Your task to perform on an android device: open app "Viber Messenger" (install if not already installed) Image 0: 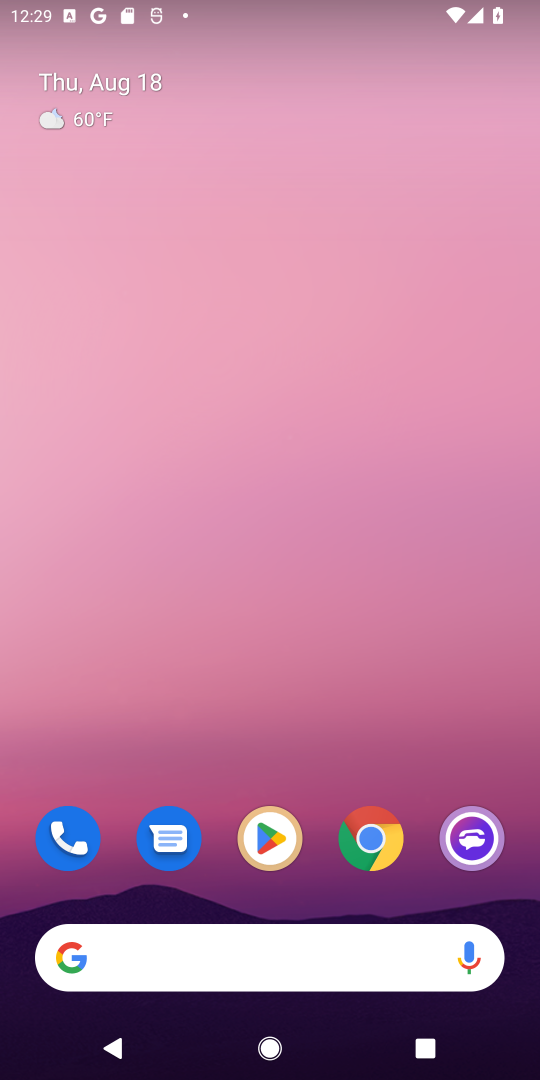
Step 0: click (267, 836)
Your task to perform on an android device: open app "Viber Messenger" (install if not already installed) Image 1: 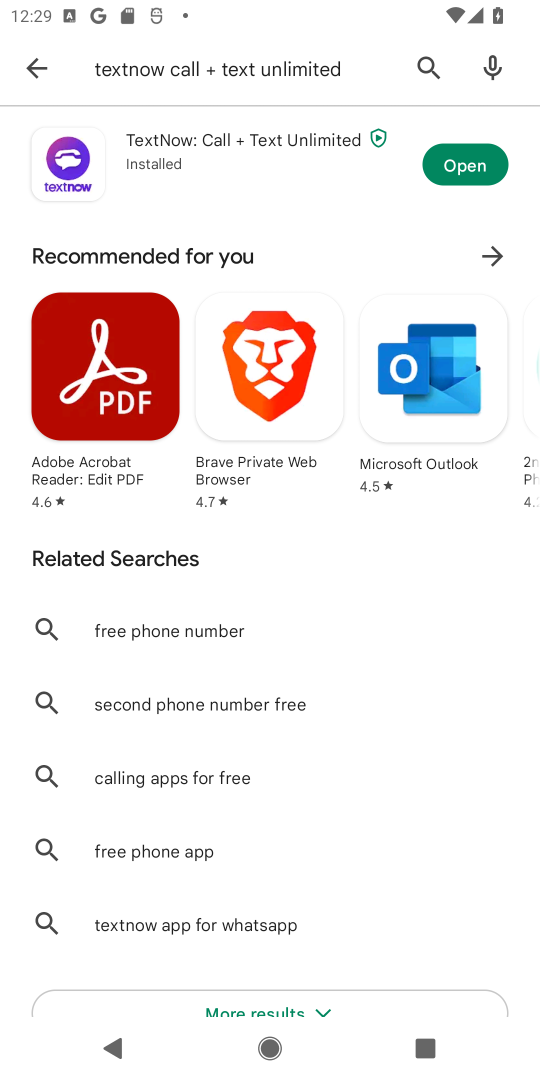
Step 1: click (464, 70)
Your task to perform on an android device: open app "Viber Messenger" (install if not already installed) Image 2: 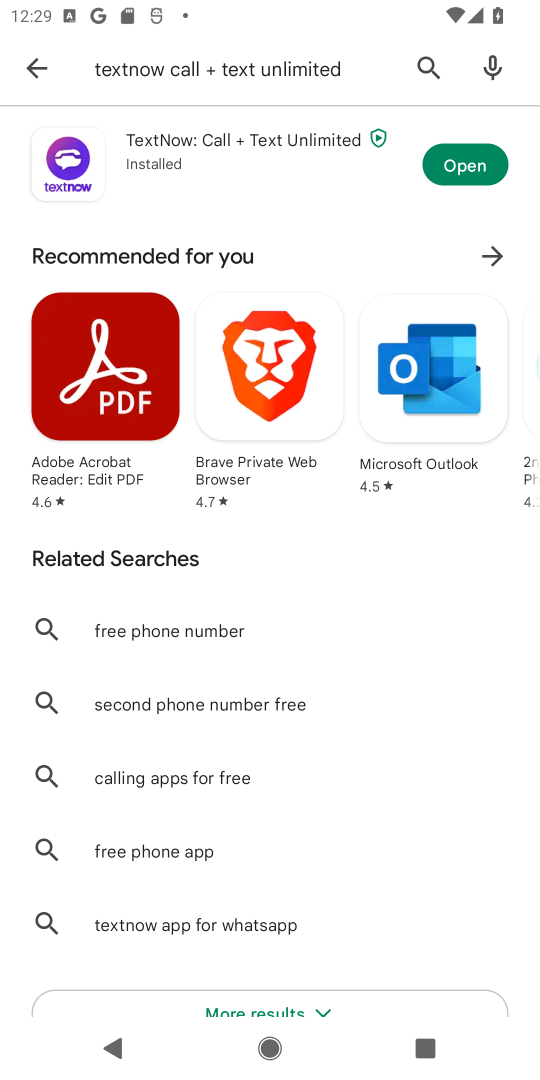
Step 2: click (448, 68)
Your task to perform on an android device: open app "Viber Messenger" (install if not already installed) Image 3: 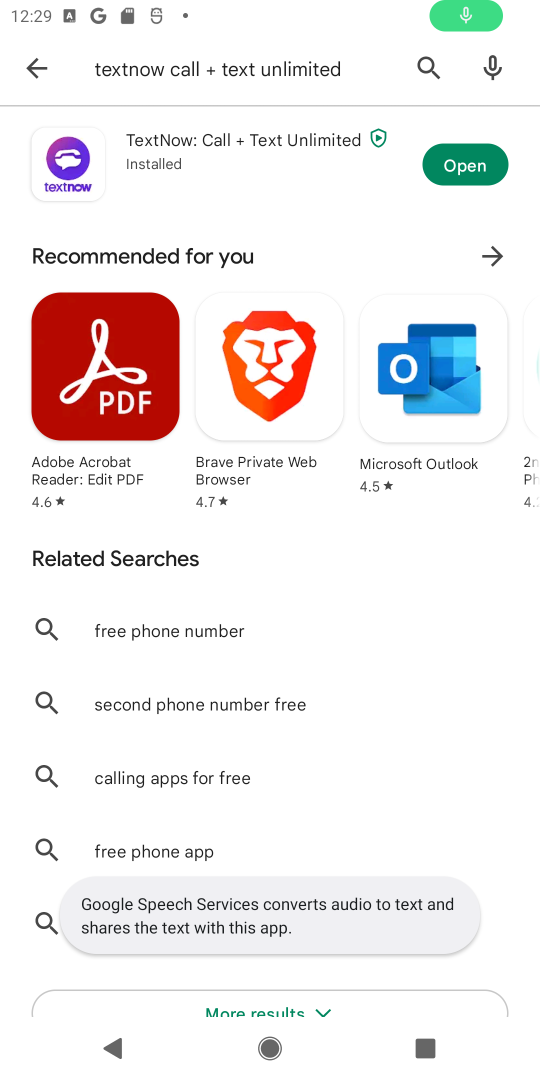
Step 3: click (418, 61)
Your task to perform on an android device: open app "Viber Messenger" (install if not already installed) Image 4: 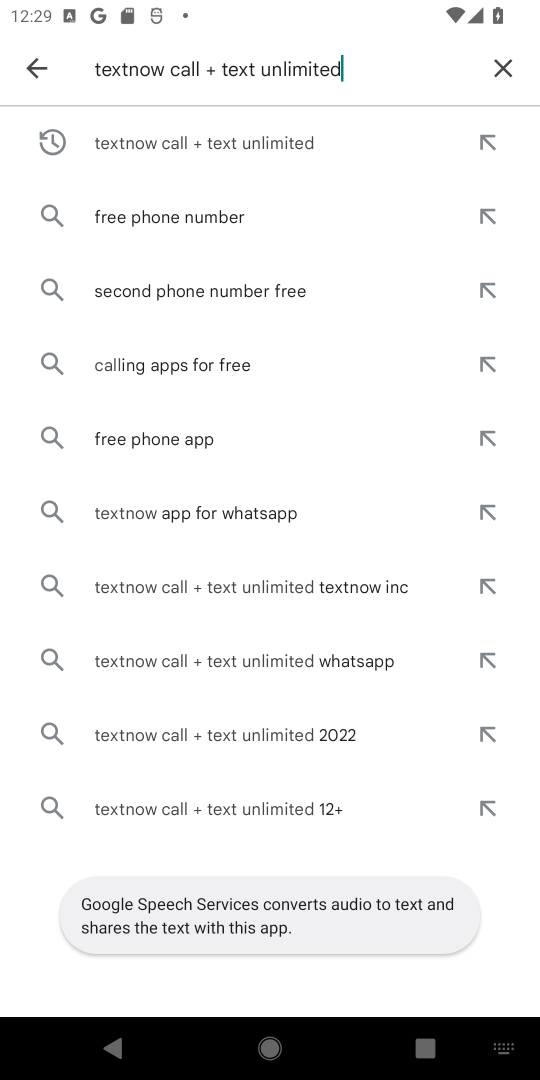
Step 4: click (501, 62)
Your task to perform on an android device: open app "Viber Messenger" (install if not already installed) Image 5: 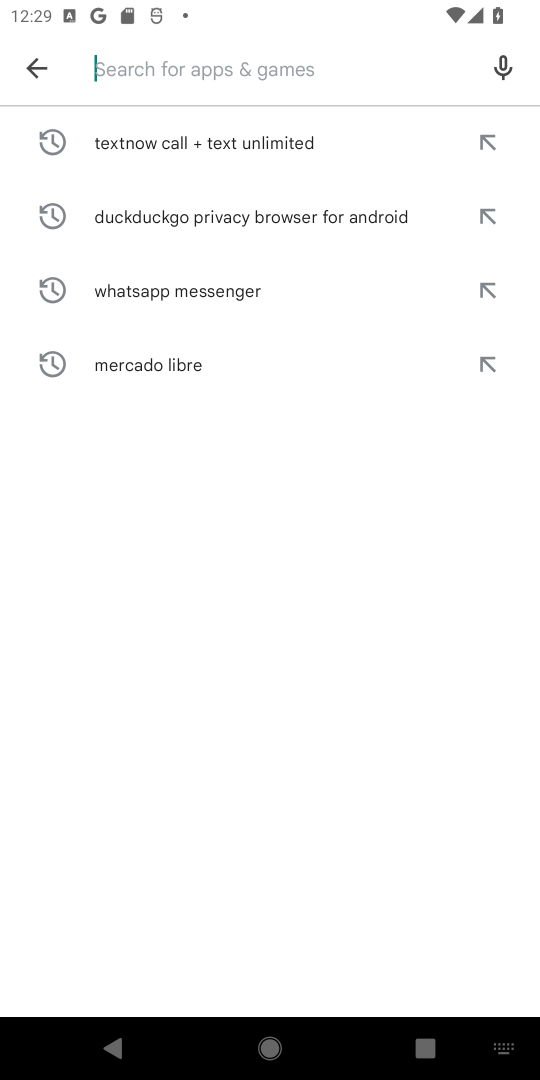
Step 5: type "Viber Messenger"
Your task to perform on an android device: open app "Viber Messenger" (install if not already installed) Image 6: 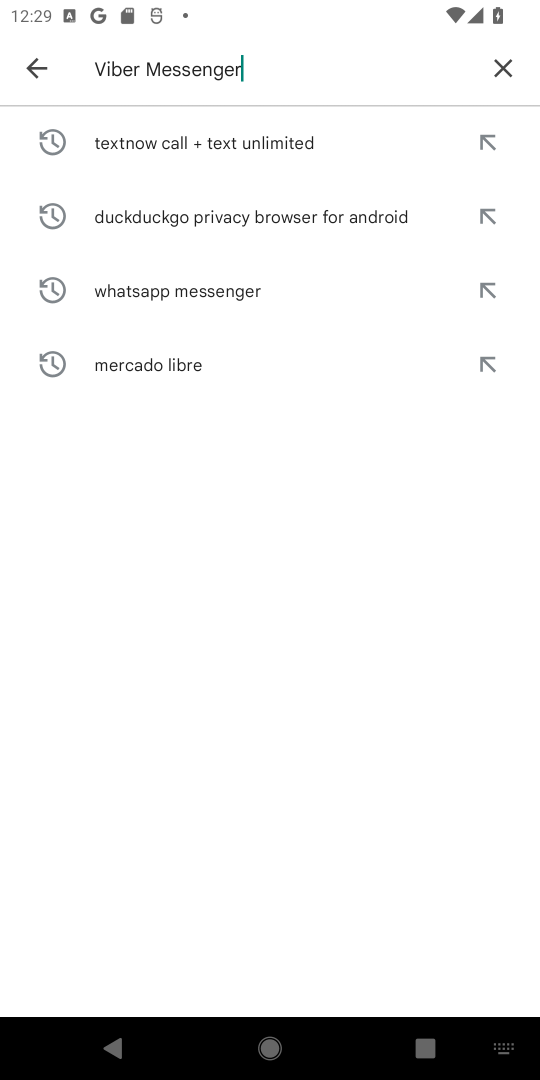
Step 6: type ""
Your task to perform on an android device: open app "Viber Messenger" (install if not already installed) Image 7: 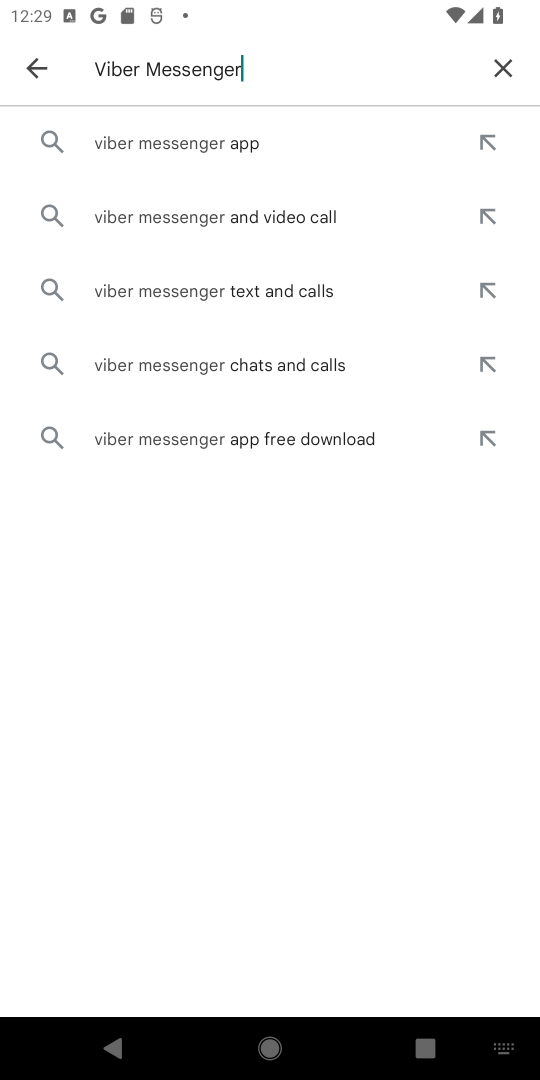
Step 7: click (175, 133)
Your task to perform on an android device: open app "Viber Messenger" (install if not already installed) Image 8: 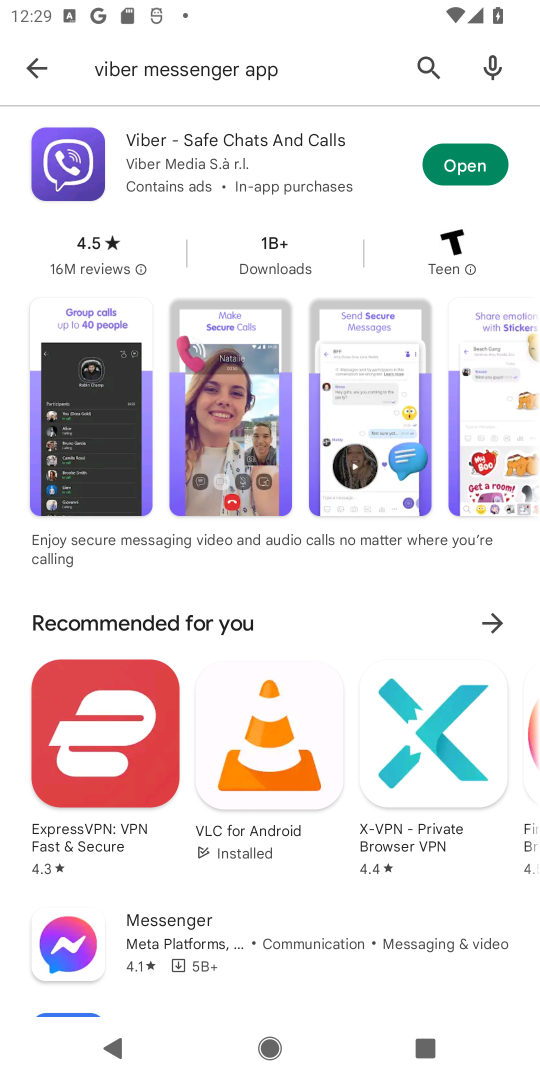
Step 8: click (486, 165)
Your task to perform on an android device: open app "Viber Messenger" (install if not already installed) Image 9: 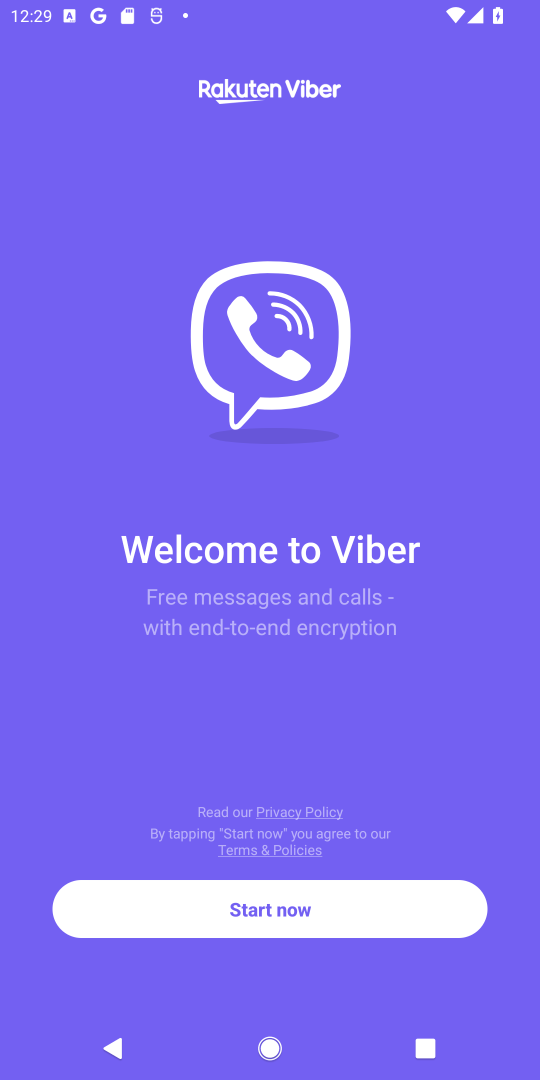
Step 9: task complete